Your task to perform on an android device: move a message to another label in the gmail app Image 0: 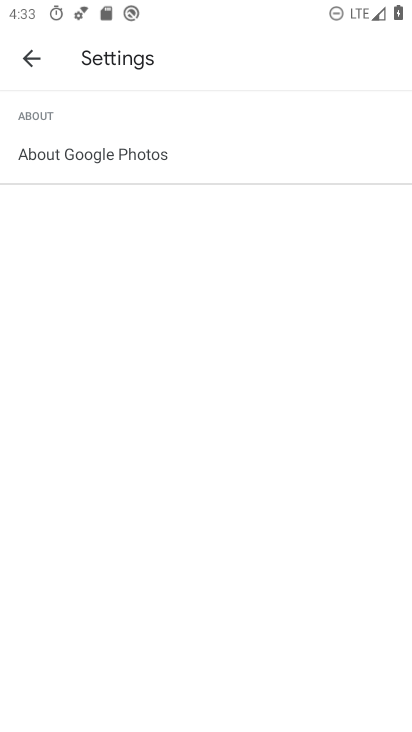
Step 0: press back button
Your task to perform on an android device: move a message to another label in the gmail app Image 1: 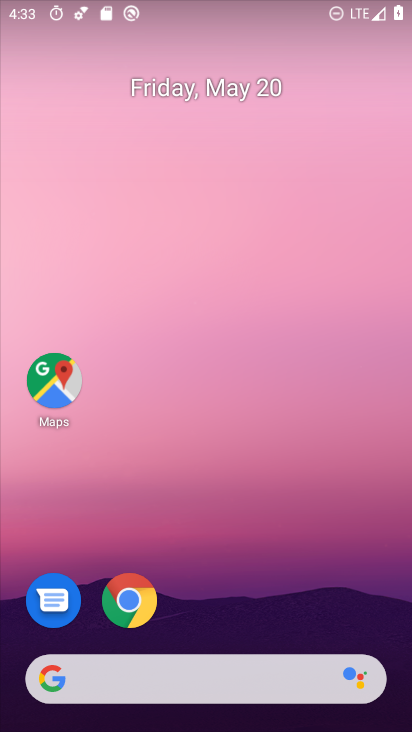
Step 1: drag from (258, 587) to (295, 97)
Your task to perform on an android device: move a message to another label in the gmail app Image 2: 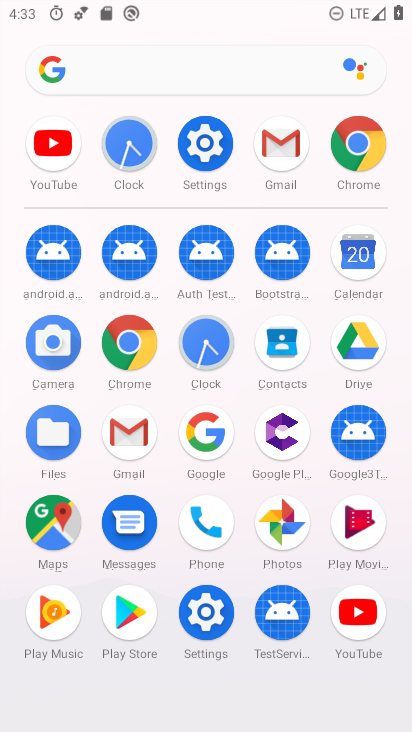
Step 2: click (134, 429)
Your task to perform on an android device: move a message to another label in the gmail app Image 3: 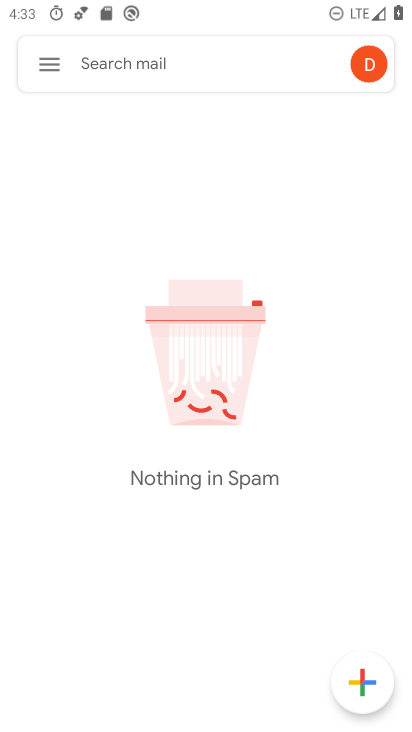
Step 3: click (45, 62)
Your task to perform on an android device: move a message to another label in the gmail app Image 4: 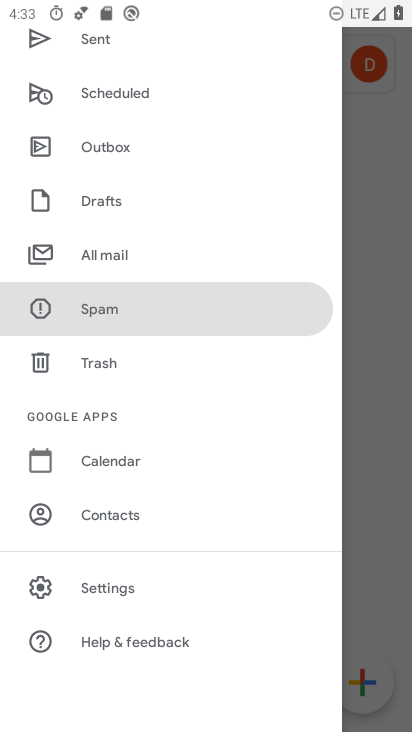
Step 4: click (112, 262)
Your task to perform on an android device: move a message to another label in the gmail app Image 5: 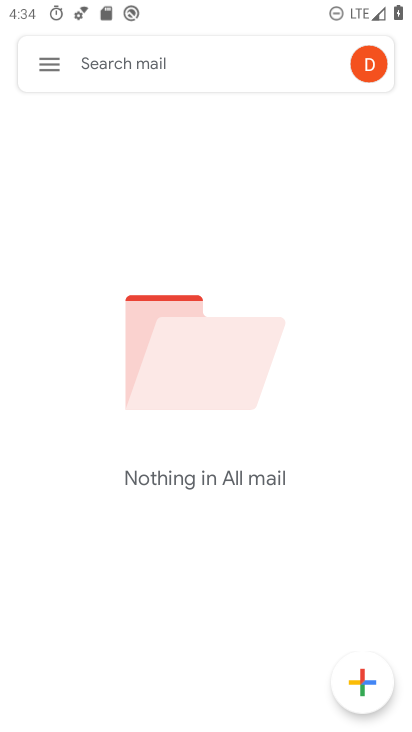
Step 5: task complete